Your task to perform on an android device: delete location history Image 0: 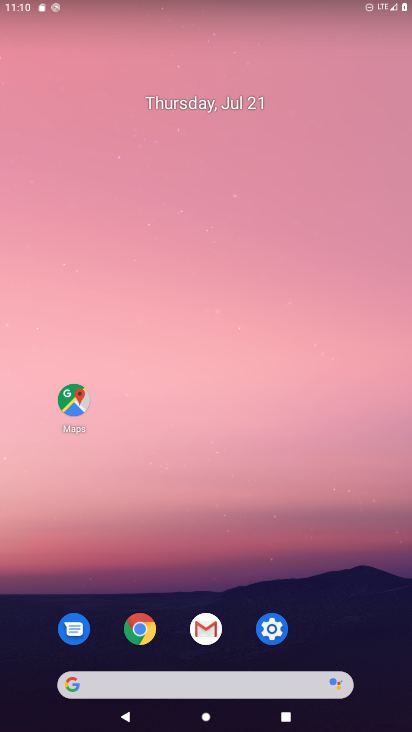
Step 0: click (292, 629)
Your task to perform on an android device: delete location history Image 1: 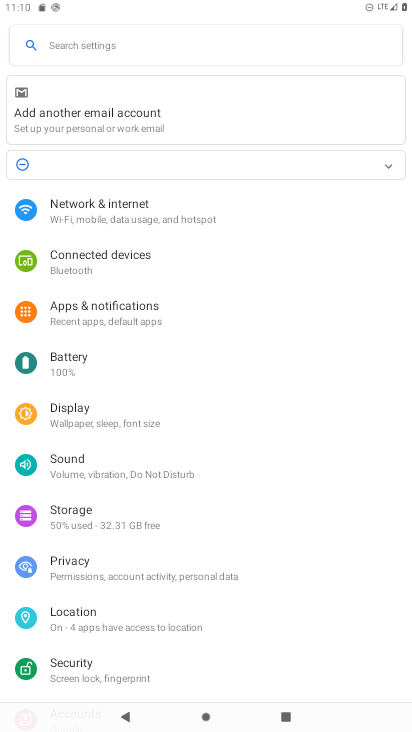
Step 1: click (115, 609)
Your task to perform on an android device: delete location history Image 2: 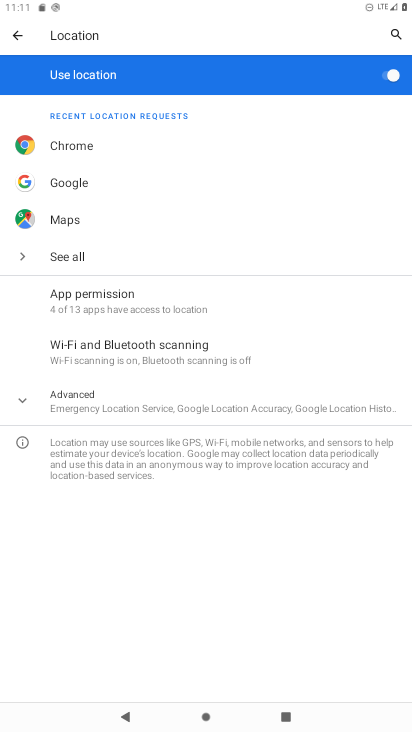
Step 2: click (47, 397)
Your task to perform on an android device: delete location history Image 3: 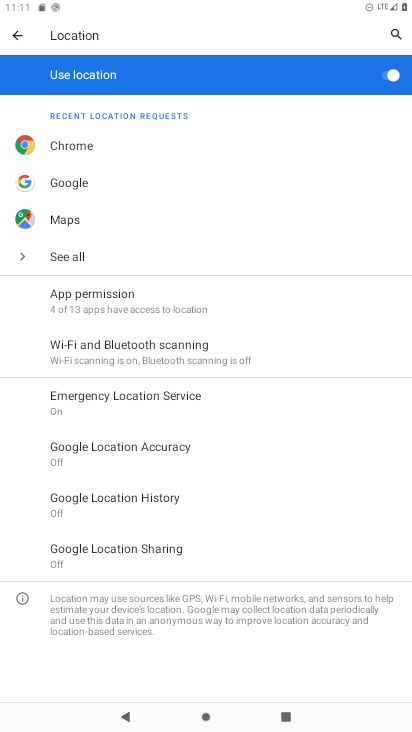
Step 3: click (112, 495)
Your task to perform on an android device: delete location history Image 4: 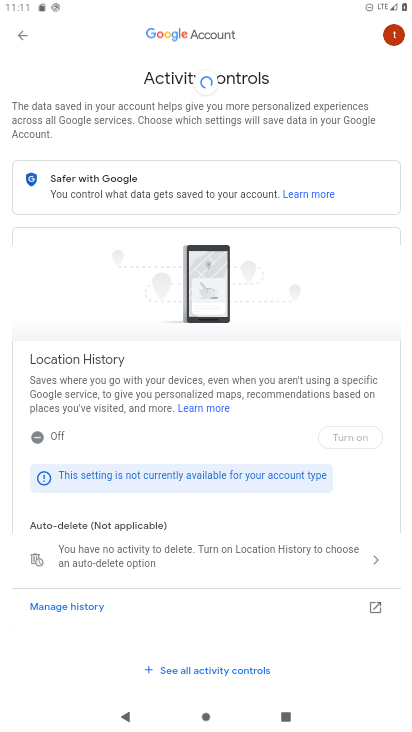
Step 4: task complete